Your task to perform on an android device: turn off picture-in-picture Image 0: 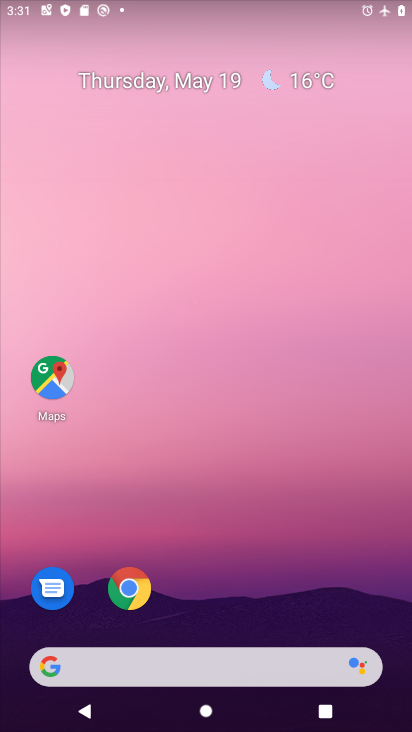
Step 0: click (121, 588)
Your task to perform on an android device: turn off picture-in-picture Image 1: 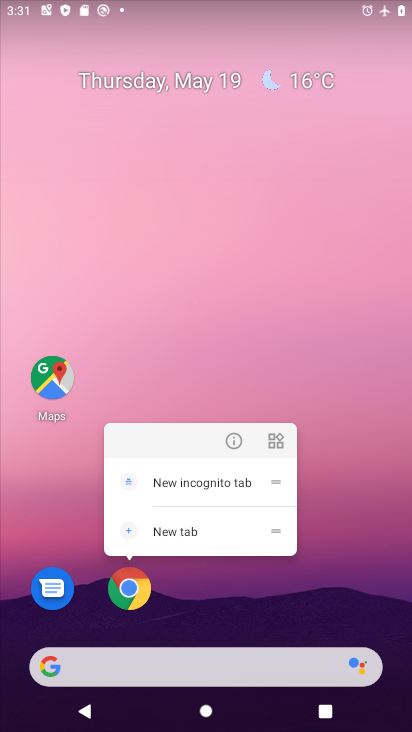
Step 1: click (235, 445)
Your task to perform on an android device: turn off picture-in-picture Image 2: 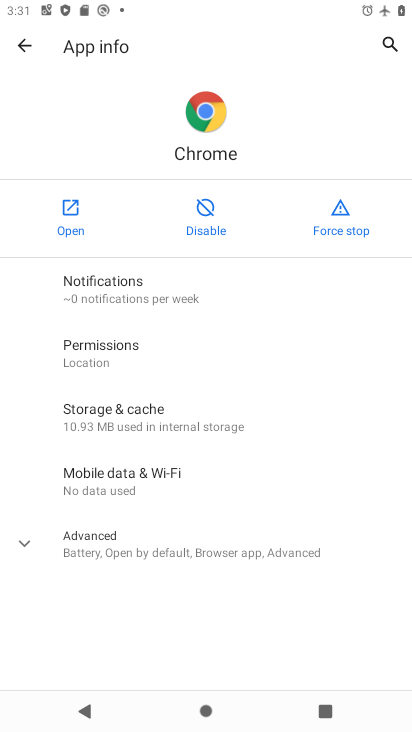
Step 2: click (130, 547)
Your task to perform on an android device: turn off picture-in-picture Image 3: 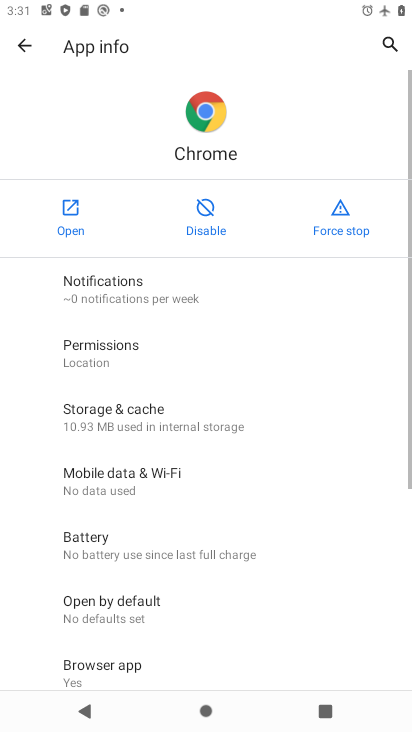
Step 3: drag from (200, 599) to (294, 32)
Your task to perform on an android device: turn off picture-in-picture Image 4: 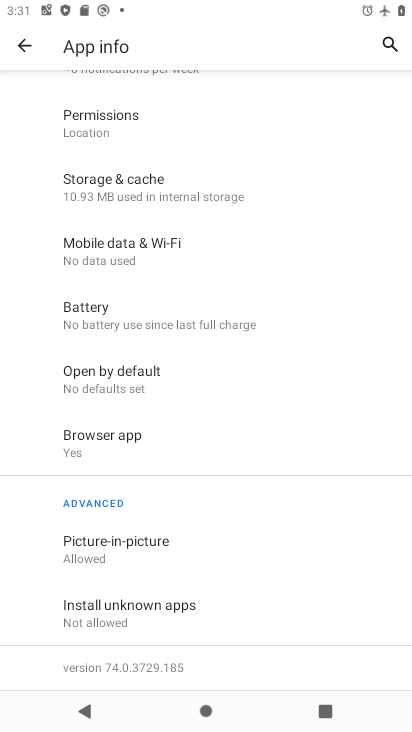
Step 4: click (152, 551)
Your task to perform on an android device: turn off picture-in-picture Image 5: 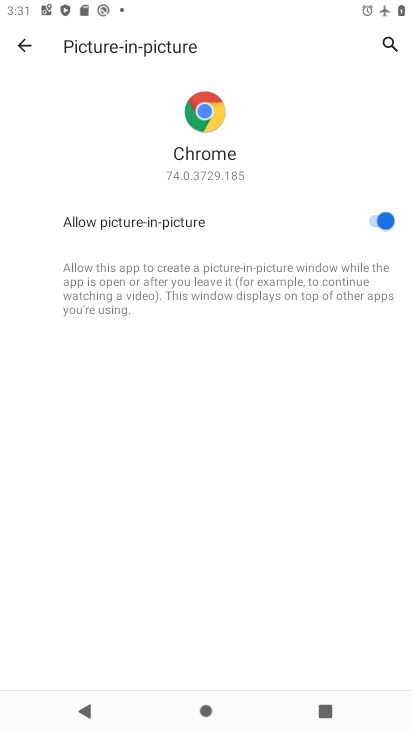
Step 5: click (378, 219)
Your task to perform on an android device: turn off picture-in-picture Image 6: 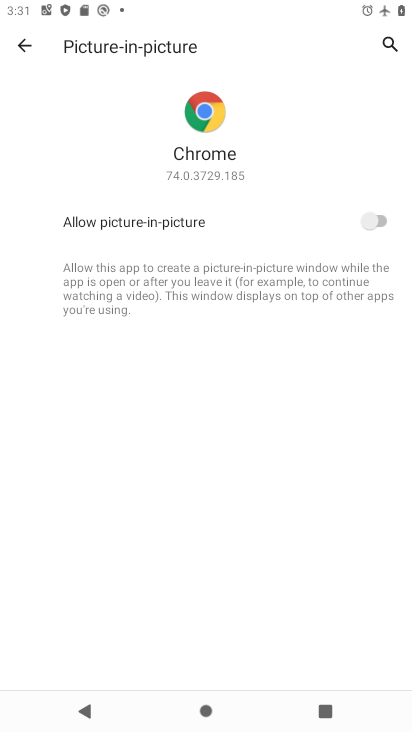
Step 6: task complete